Your task to perform on an android device: Open my contact list Image 0: 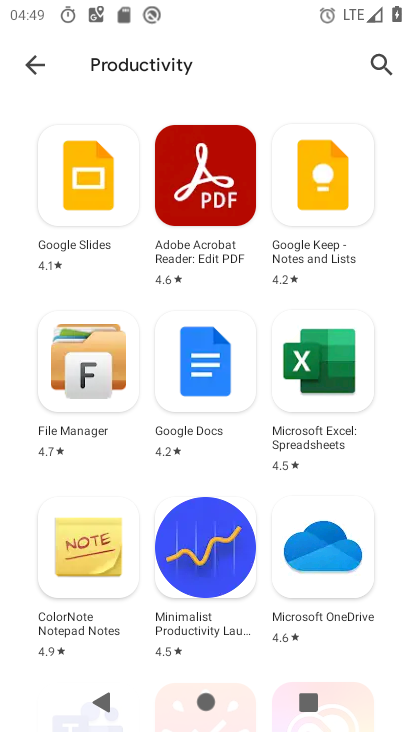
Step 0: press back button
Your task to perform on an android device: Open my contact list Image 1: 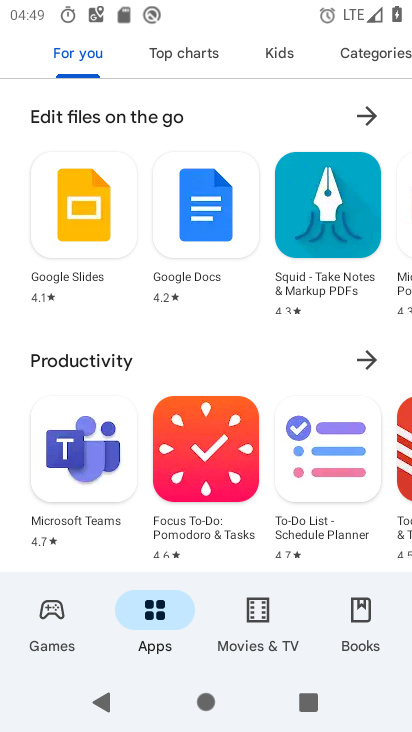
Step 1: press back button
Your task to perform on an android device: Open my contact list Image 2: 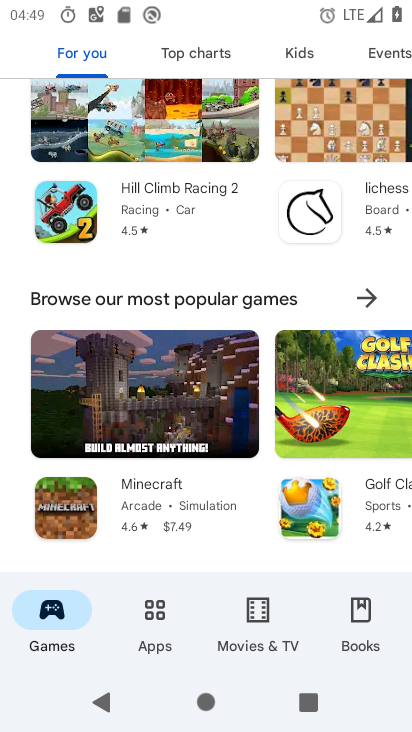
Step 2: press home button
Your task to perform on an android device: Open my contact list Image 3: 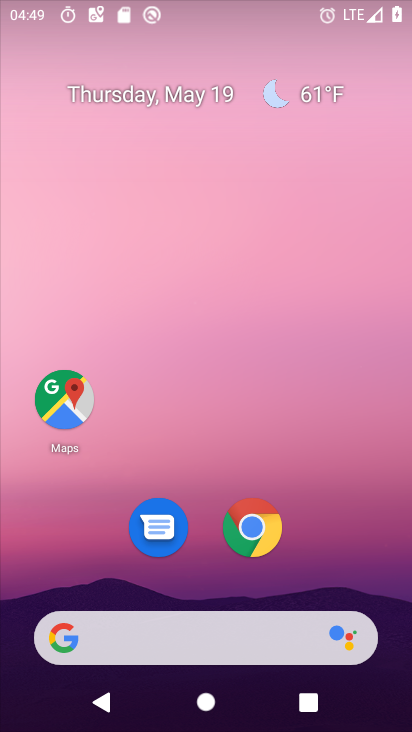
Step 3: drag from (189, 551) to (241, 36)
Your task to perform on an android device: Open my contact list Image 4: 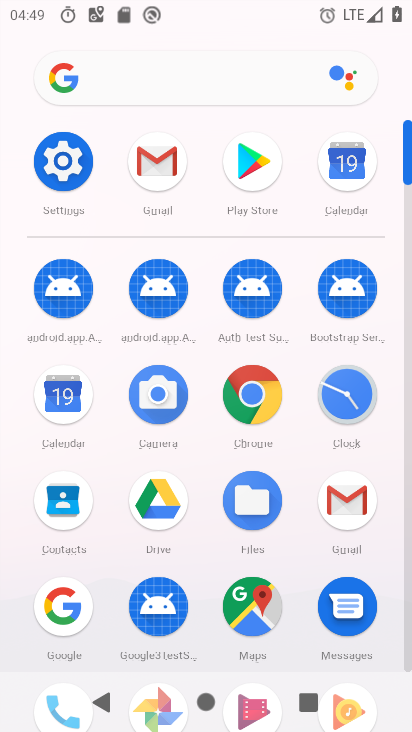
Step 4: click (57, 507)
Your task to perform on an android device: Open my contact list Image 5: 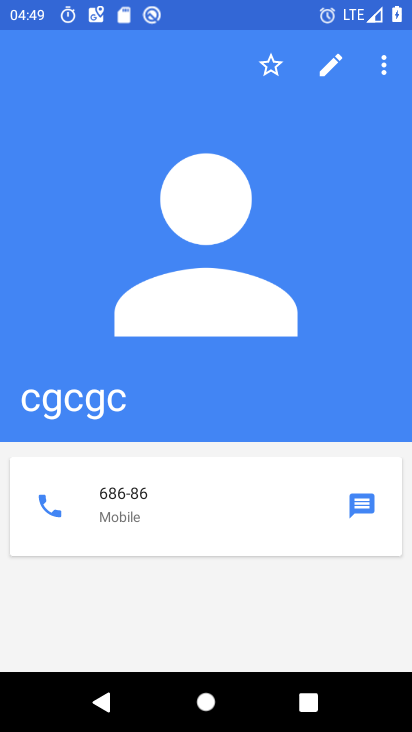
Step 5: task complete